Your task to perform on an android device: show emergency info Image 0: 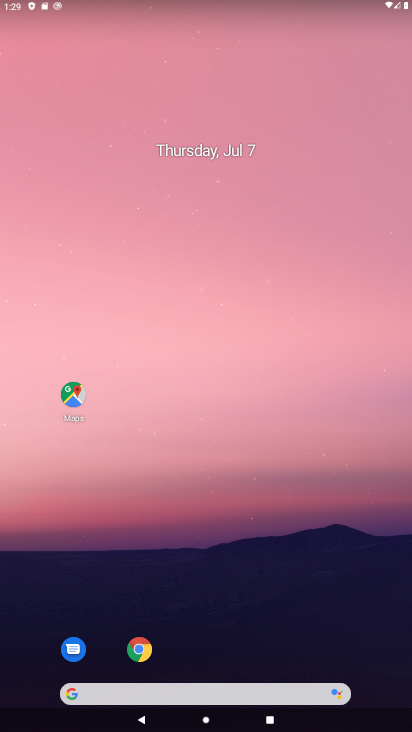
Step 0: drag from (358, 651) to (330, 215)
Your task to perform on an android device: show emergency info Image 1: 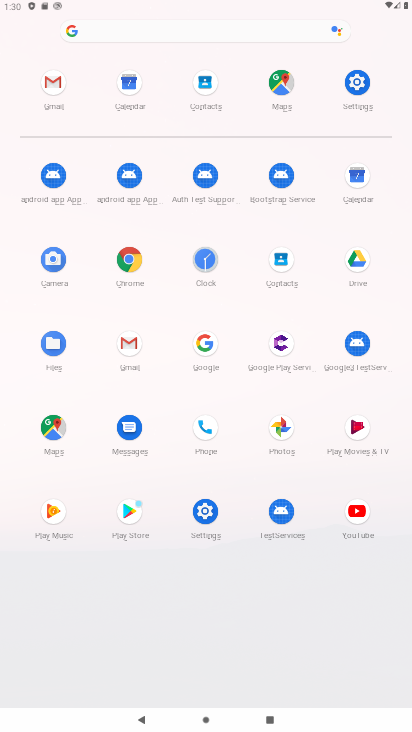
Step 1: click (205, 511)
Your task to perform on an android device: show emergency info Image 2: 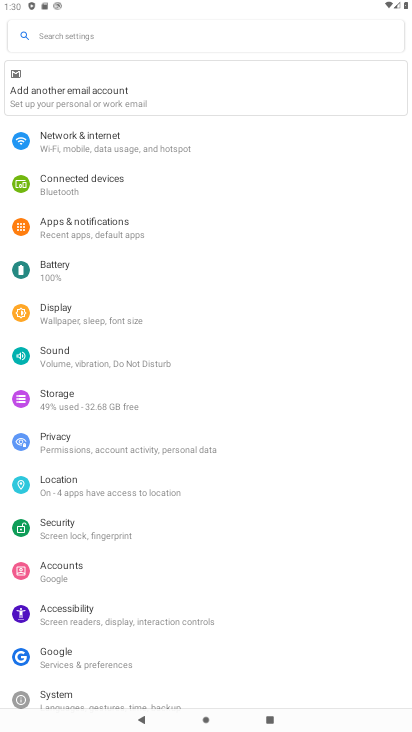
Step 2: drag from (234, 636) to (194, 407)
Your task to perform on an android device: show emergency info Image 3: 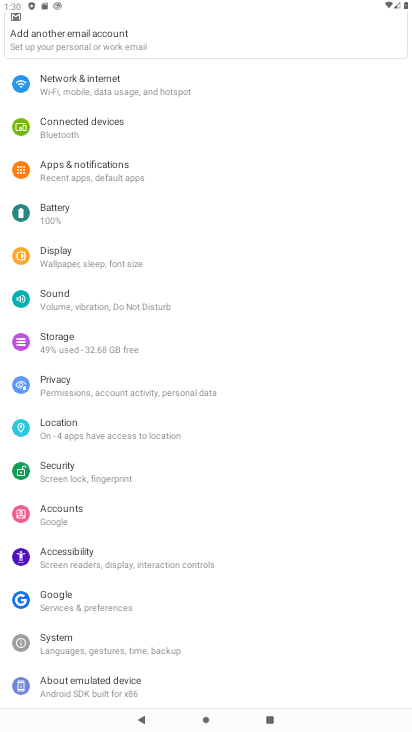
Step 3: click (60, 680)
Your task to perform on an android device: show emergency info Image 4: 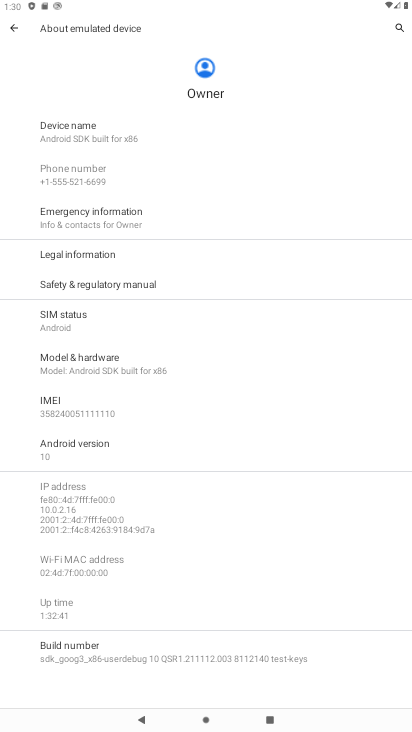
Step 4: click (88, 208)
Your task to perform on an android device: show emergency info Image 5: 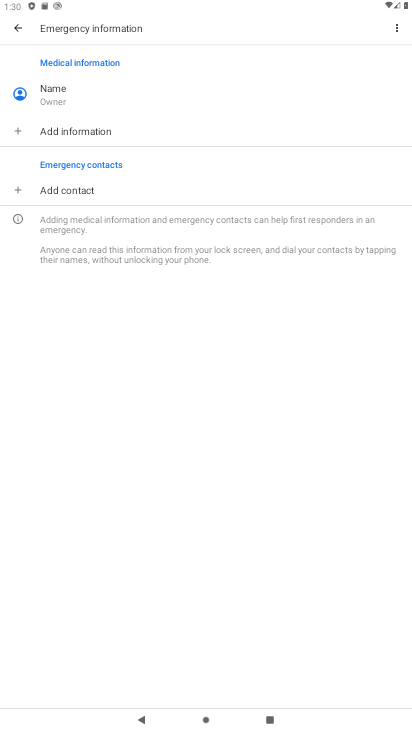
Step 5: task complete